Your task to perform on an android device: find photos in the google photos app Image 0: 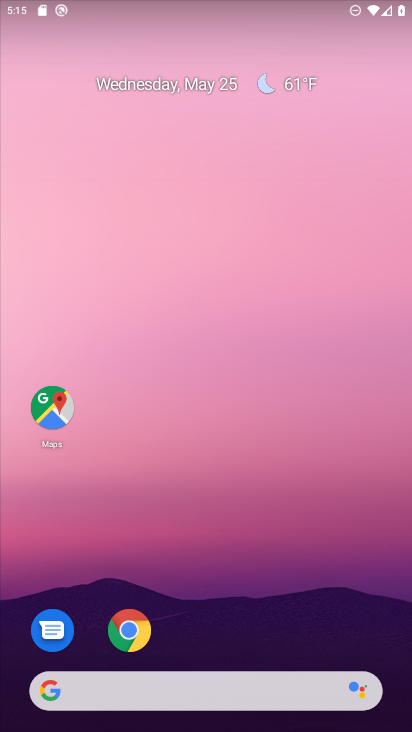
Step 0: drag from (227, 609) to (263, 144)
Your task to perform on an android device: find photos in the google photos app Image 1: 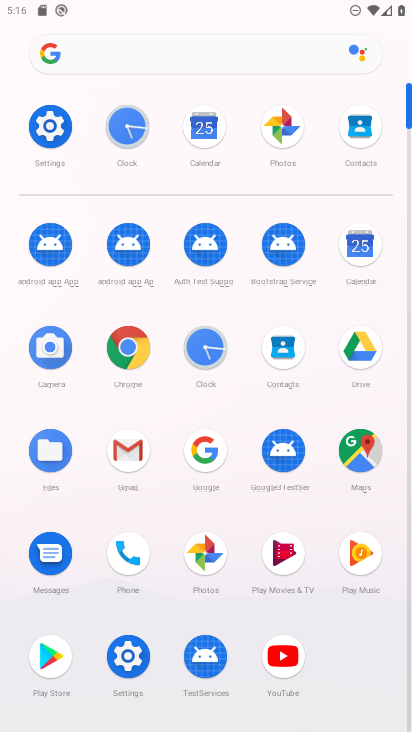
Step 1: click (210, 552)
Your task to perform on an android device: find photos in the google photos app Image 2: 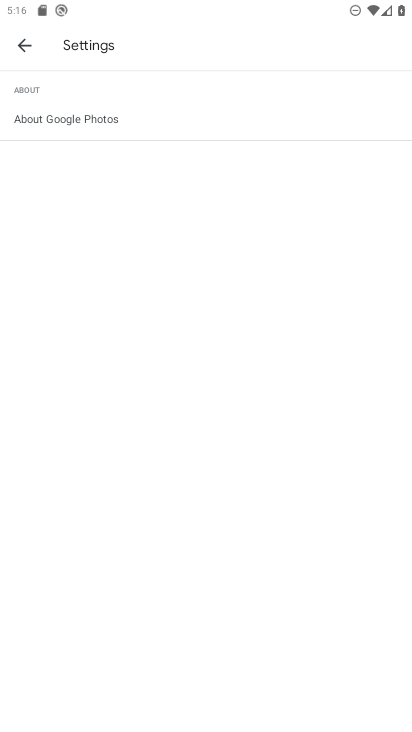
Step 2: click (30, 35)
Your task to perform on an android device: find photos in the google photos app Image 3: 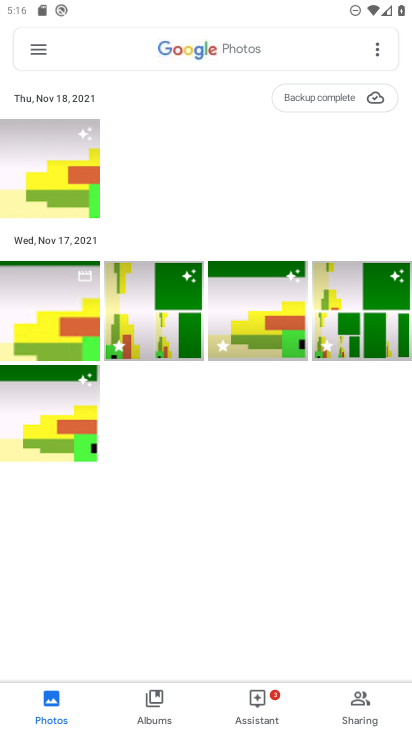
Step 3: click (44, 715)
Your task to perform on an android device: find photos in the google photos app Image 4: 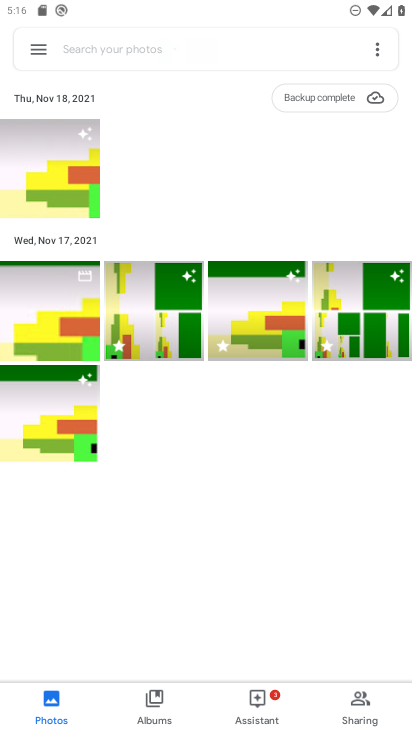
Step 4: task complete